Your task to perform on an android device: turn on airplane mode Image 0: 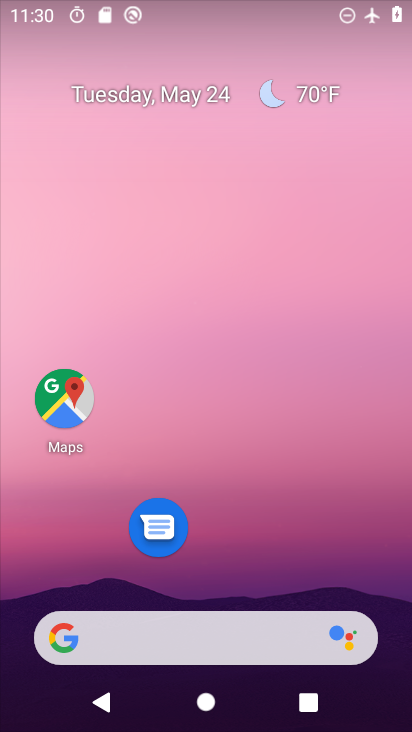
Step 0: drag from (248, 554) to (288, 118)
Your task to perform on an android device: turn on airplane mode Image 1: 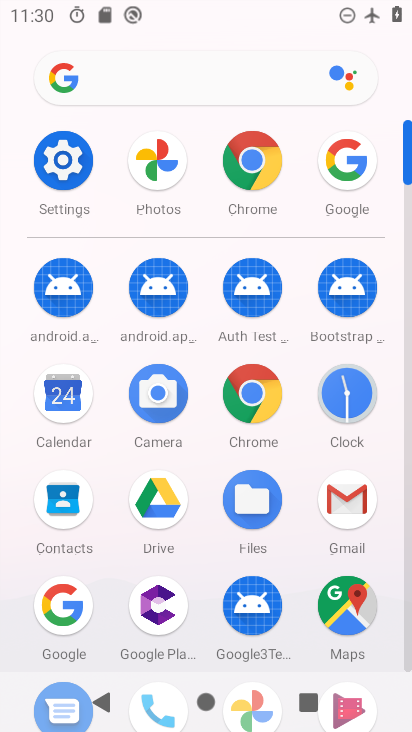
Step 1: click (62, 165)
Your task to perform on an android device: turn on airplane mode Image 2: 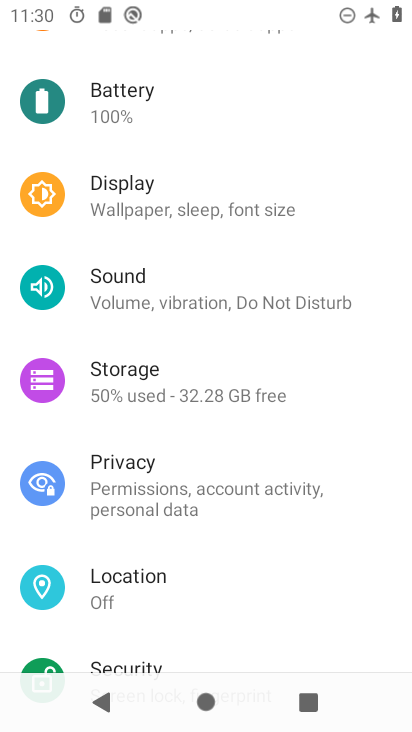
Step 2: drag from (180, 153) to (179, 671)
Your task to perform on an android device: turn on airplane mode Image 3: 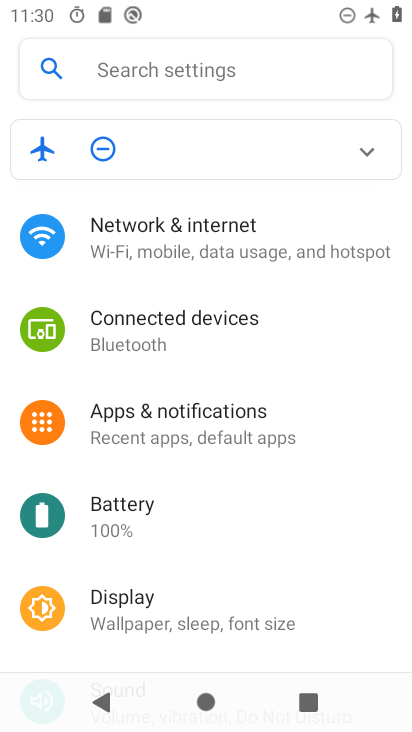
Step 3: click (167, 259)
Your task to perform on an android device: turn on airplane mode Image 4: 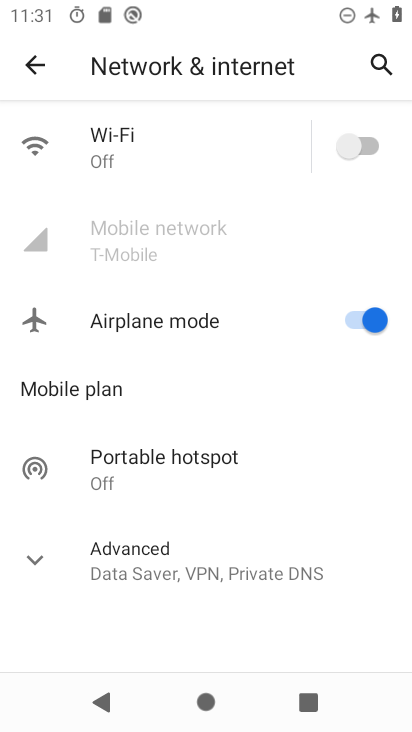
Step 4: task complete